Your task to perform on an android device: open sync settings in chrome Image 0: 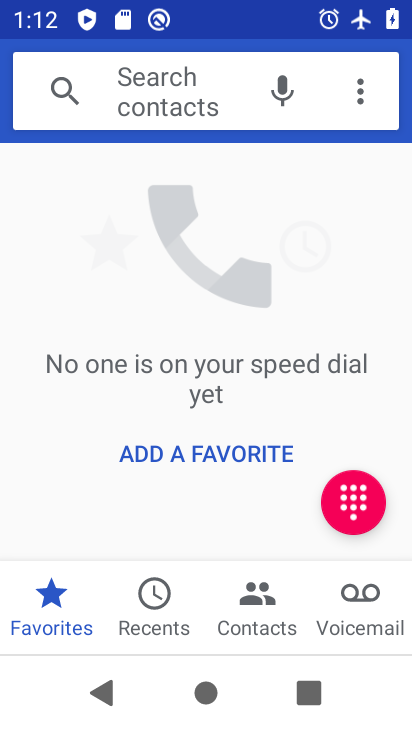
Step 0: press home button
Your task to perform on an android device: open sync settings in chrome Image 1: 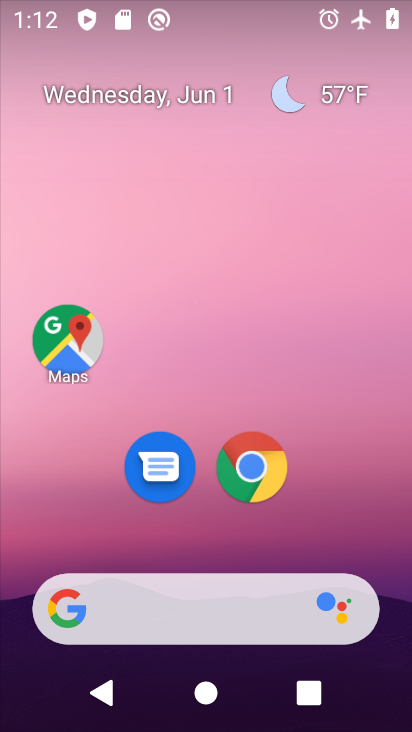
Step 1: drag from (364, 453) to (359, 155)
Your task to perform on an android device: open sync settings in chrome Image 2: 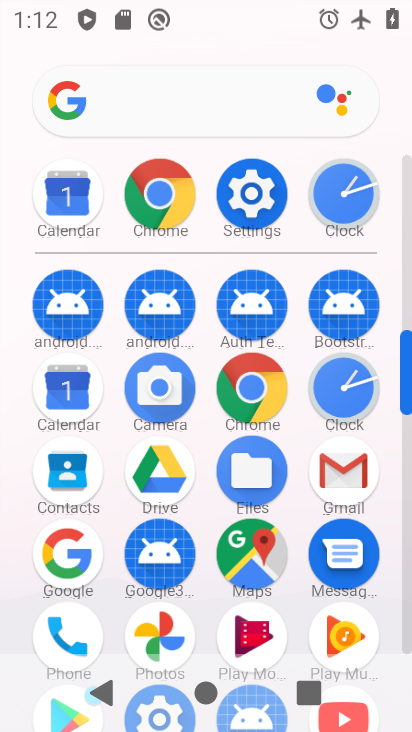
Step 2: click (265, 400)
Your task to perform on an android device: open sync settings in chrome Image 3: 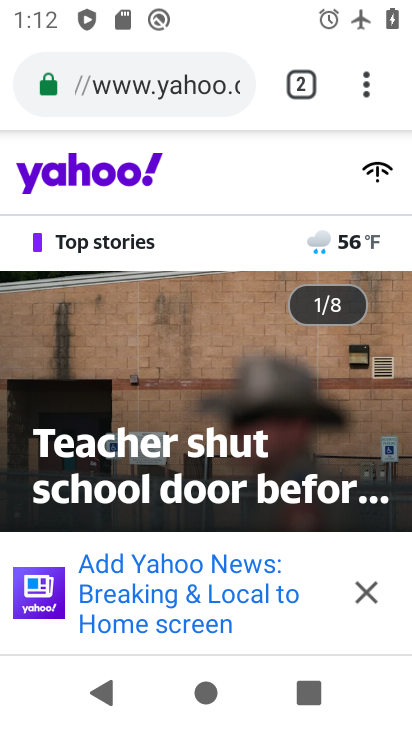
Step 3: click (367, 91)
Your task to perform on an android device: open sync settings in chrome Image 4: 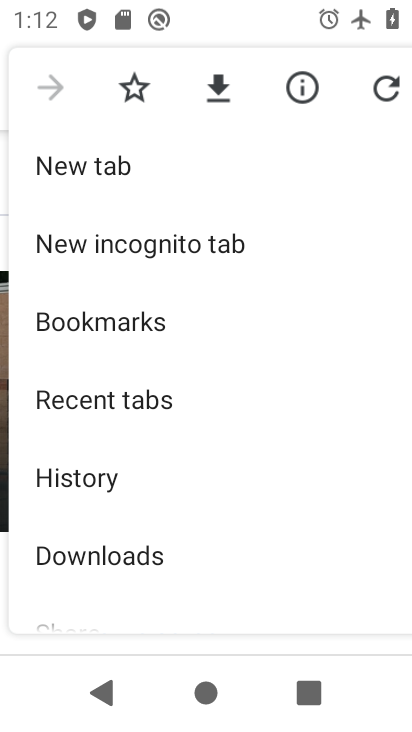
Step 4: drag from (269, 491) to (276, 313)
Your task to perform on an android device: open sync settings in chrome Image 5: 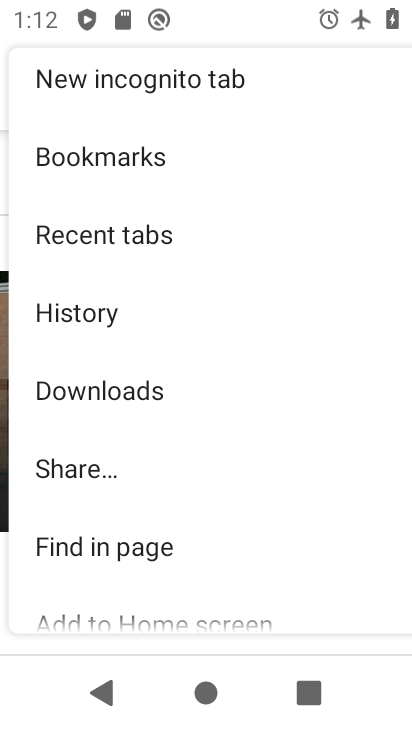
Step 5: drag from (297, 498) to (292, 316)
Your task to perform on an android device: open sync settings in chrome Image 6: 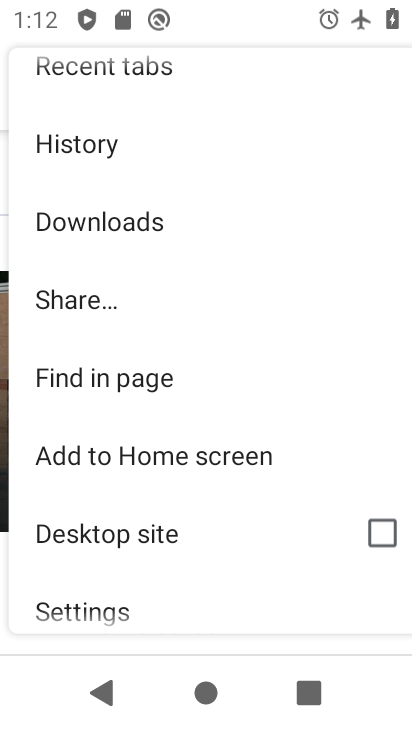
Step 6: drag from (285, 514) to (285, 349)
Your task to perform on an android device: open sync settings in chrome Image 7: 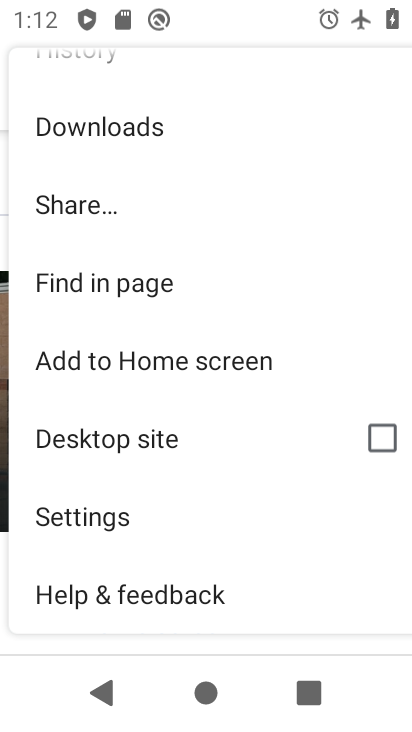
Step 7: click (123, 529)
Your task to perform on an android device: open sync settings in chrome Image 8: 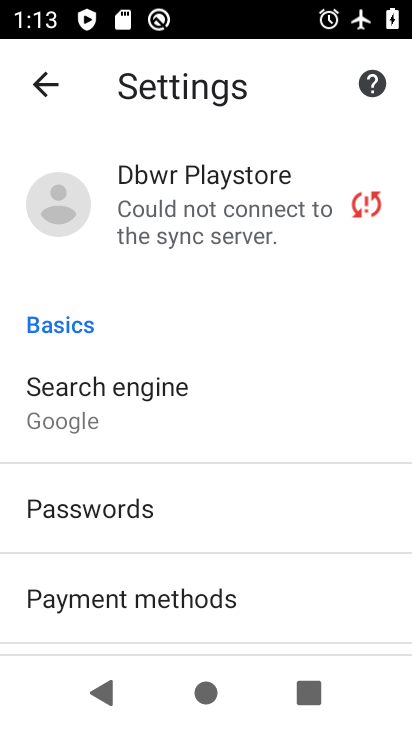
Step 8: drag from (297, 518) to (300, 359)
Your task to perform on an android device: open sync settings in chrome Image 9: 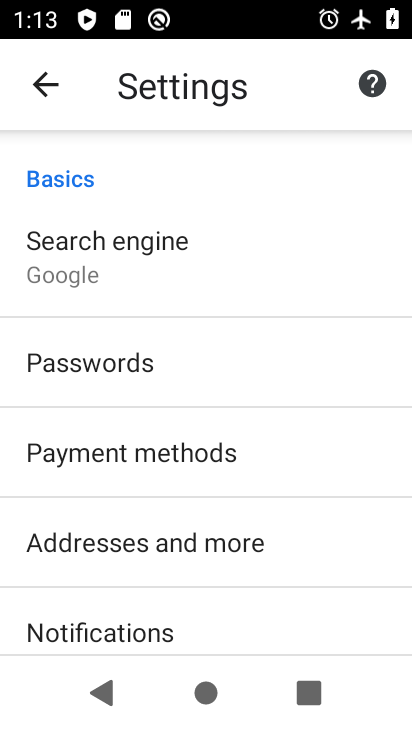
Step 9: drag from (315, 524) to (320, 365)
Your task to perform on an android device: open sync settings in chrome Image 10: 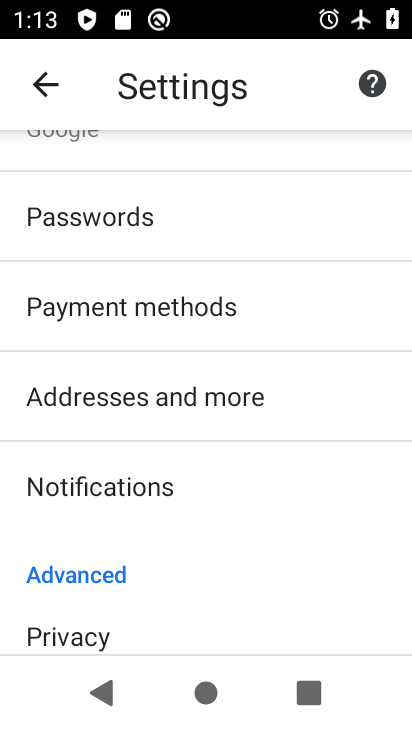
Step 10: drag from (320, 493) to (328, 360)
Your task to perform on an android device: open sync settings in chrome Image 11: 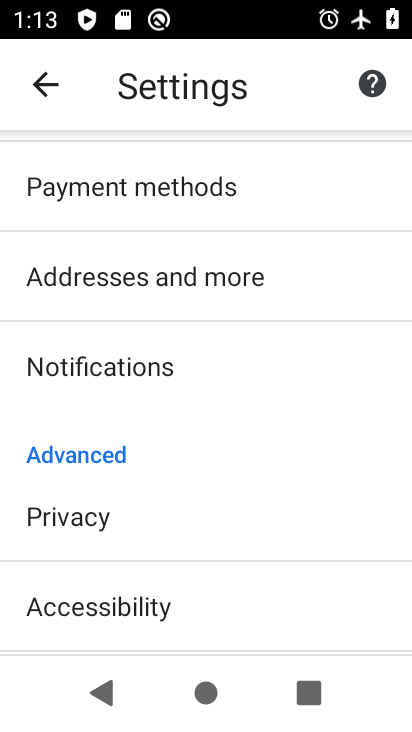
Step 11: drag from (341, 482) to (340, 357)
Your task to perform on an android device: open sync settings in chrome Image 12: 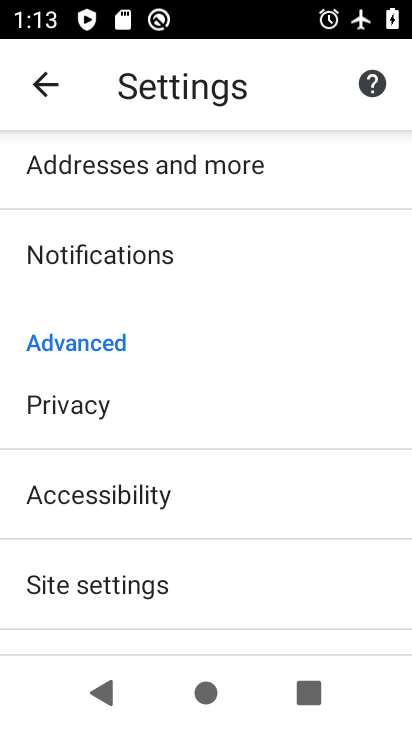
Step 12: drag from (242, 548) to (259, 388)
Your task to perform on an android device: open sync settings in chrome Image 13: 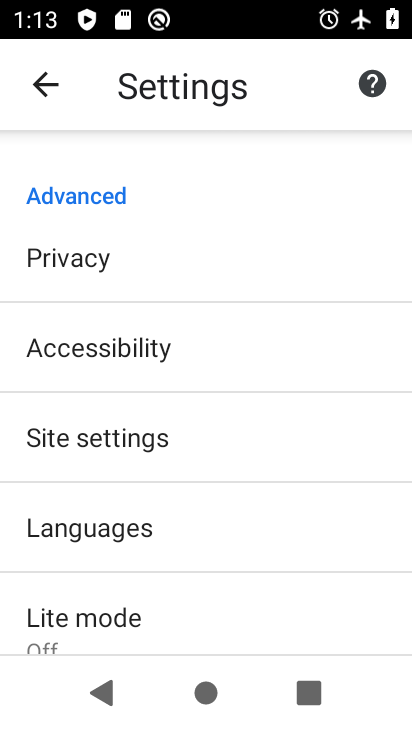
Step 13: click (261, 454)
Your task to perform on an android device: open sync settings in chrome Image 14: 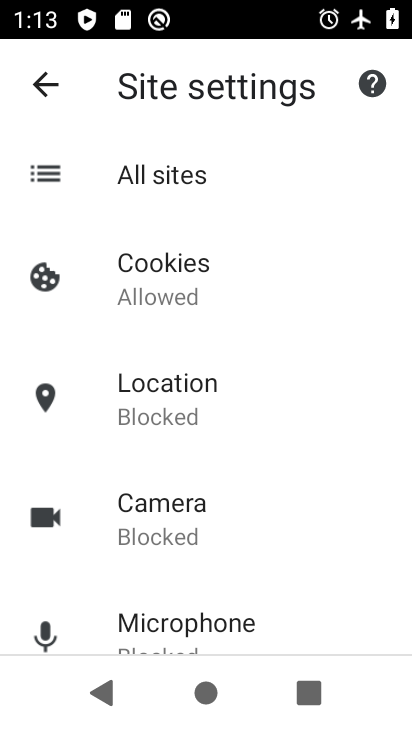
Step 14: drag from (301, 500) to (329, 357)
Your task to perform on an android device: open sync settings in chrome Image 15: 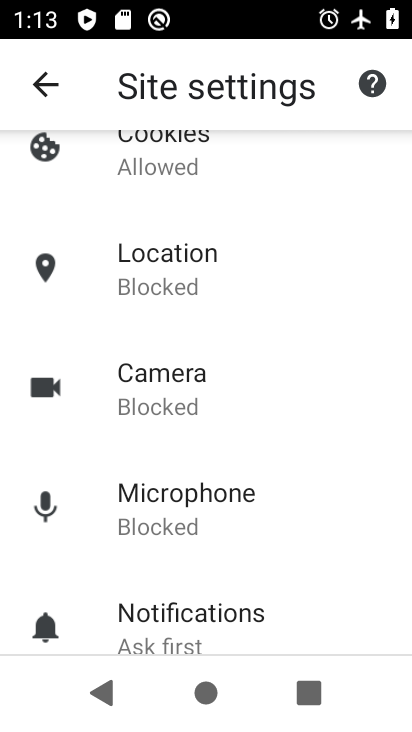
Step 15: drag from (353, 504) to (341, 348)
Your task to perform on an android device: open sync settings in chrome Image 16: 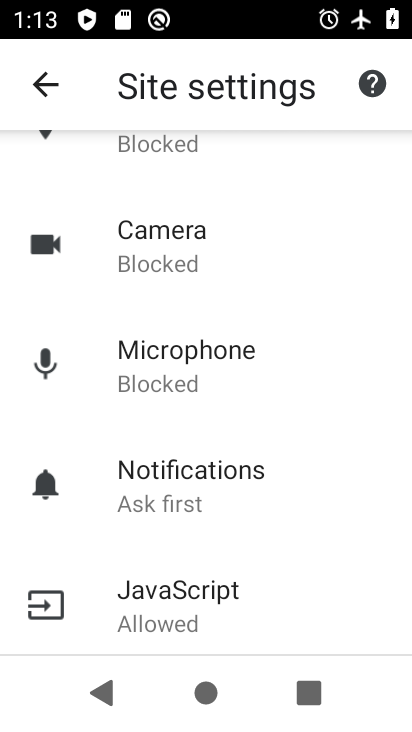
Step 16: drag from (334, 493) to (336, 386)
Your task to perform on an android device: open sync settings in chrome Image 17: 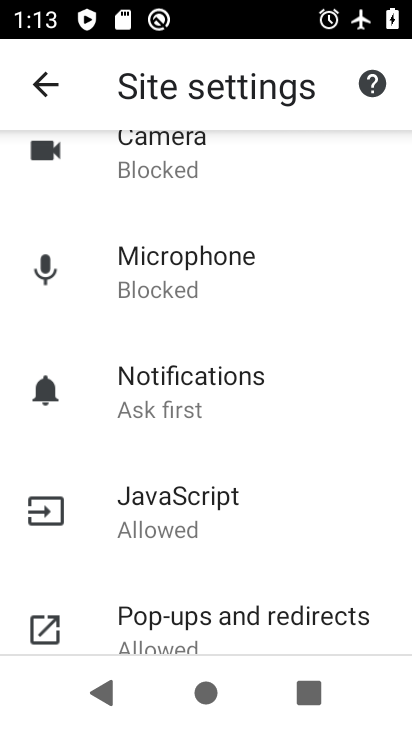
Step 17: drag from (335, 514) to (341, 367)
Your task to perform on an android device: open sync settings in chrome Image 18: 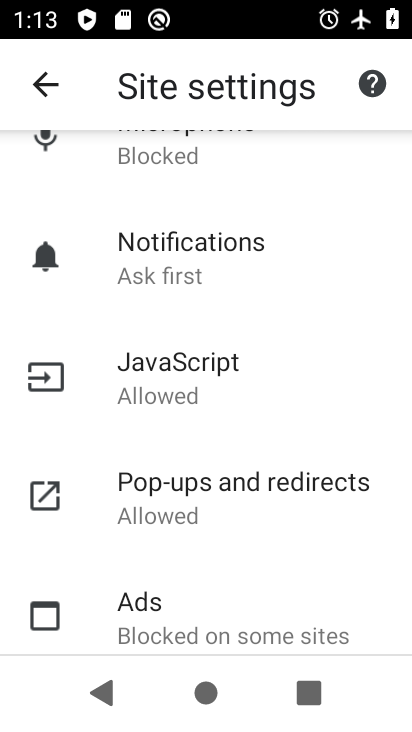
Step 18: drag from (343, 526) to (344, 395)
Your task to perform on an android device: open sync settings in chrome Image 19: 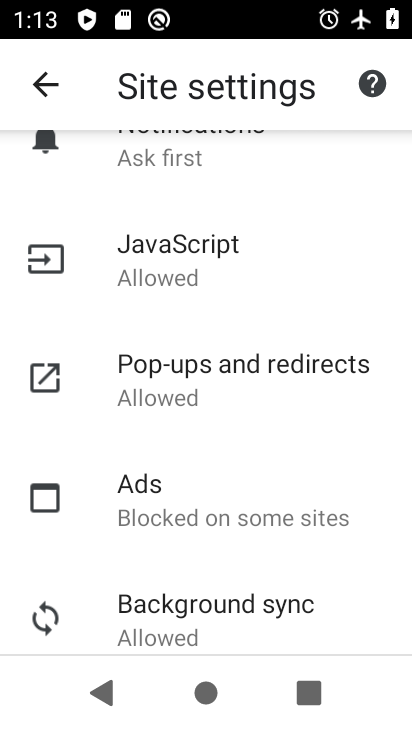
Step 19: drag from (357, 580) to (355, 366)
Your task to perform on an android device: open sync settings in chrome Image 20: 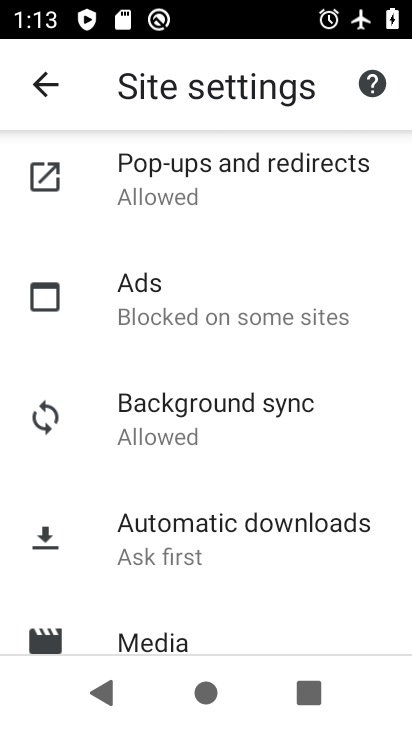
Step 20: click (270, 424)
Your task to perform on an android device: open sync settings in chrome Image 21: 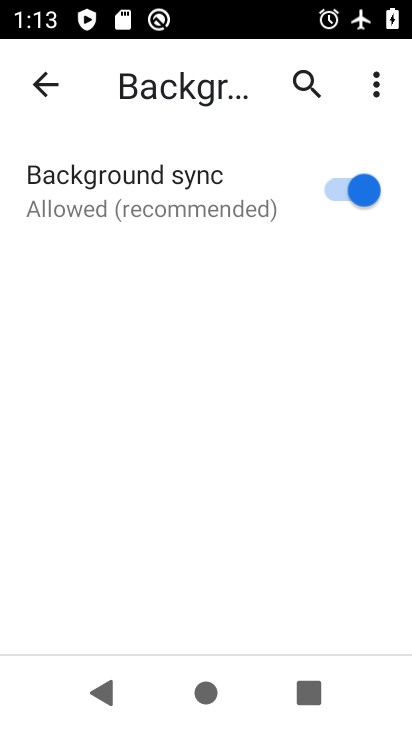
Step 21: task complete